Your task to perform on an android device: stop showing notifications on the lock screen Image 0: 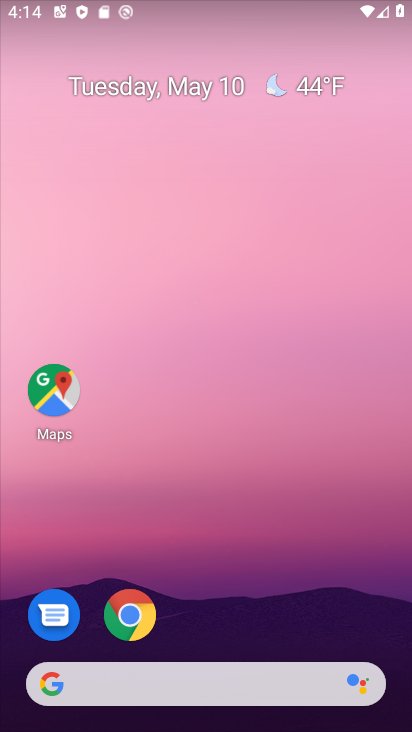
Step 0: drag from (223, 728) to (227, 121)
Your task to perform on an android device: stop showing notifications on the lock screen Image 1: 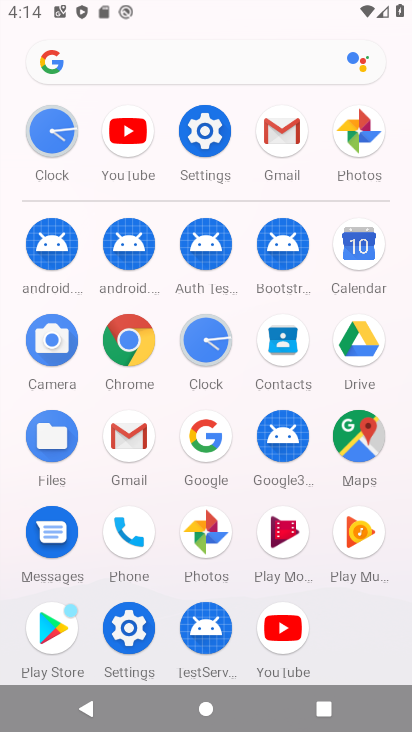
Step 1: click (207, 123)
Your task to perform on an android device: stop showing notifications on the lock screen Image 2: 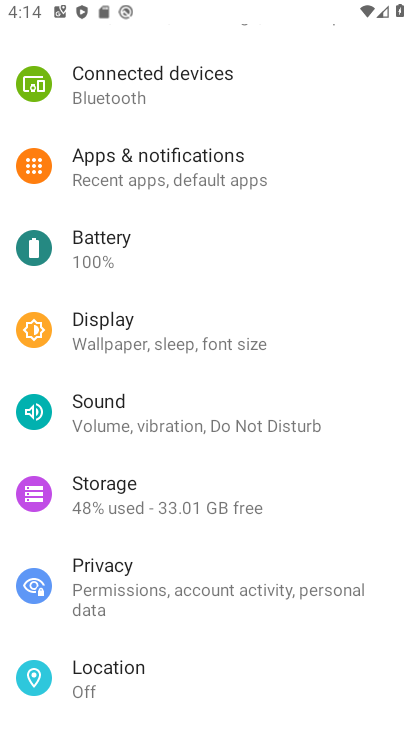
Step 2: click (150, 165)
Your task to perform on an android device: stop showing notifications on the lock screen Image 3: 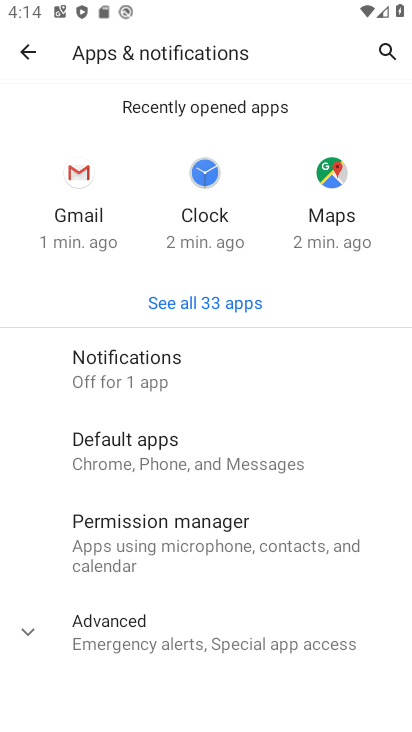
Step 3: click (129, 372)
Your task to perform on an android device: stop showing notifications on the lock screen Image 4: 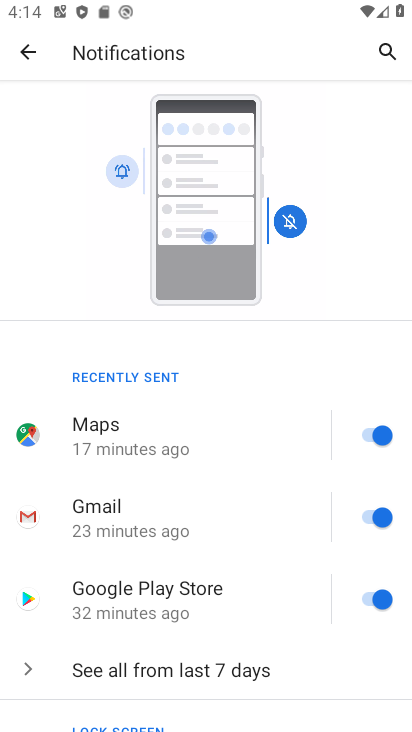
Step 4: drag from (184, 707) to (191, 305)
Your task to perform on an android device: stop showing notifications on the lock screen Image 5: 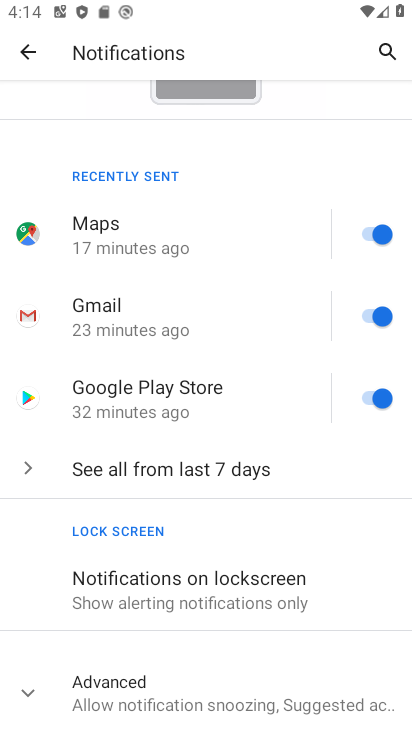
Step 5: click (199, 589)
Your task to perform on an android device: stop showing notifications on the lock screen Image 6: 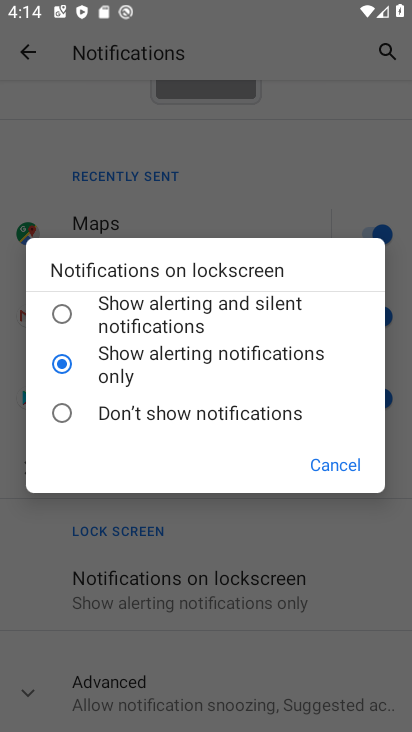
Step 6: click (59, 409)
Your task to perform on an android device: stop showing notifications on the lock screen Image 7: 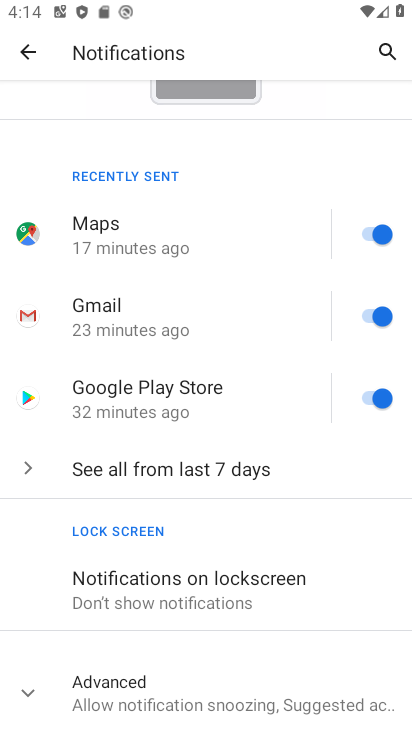
Step 7: task complete